Your task to perform on an android device: Go to accessibility settings Image 0: 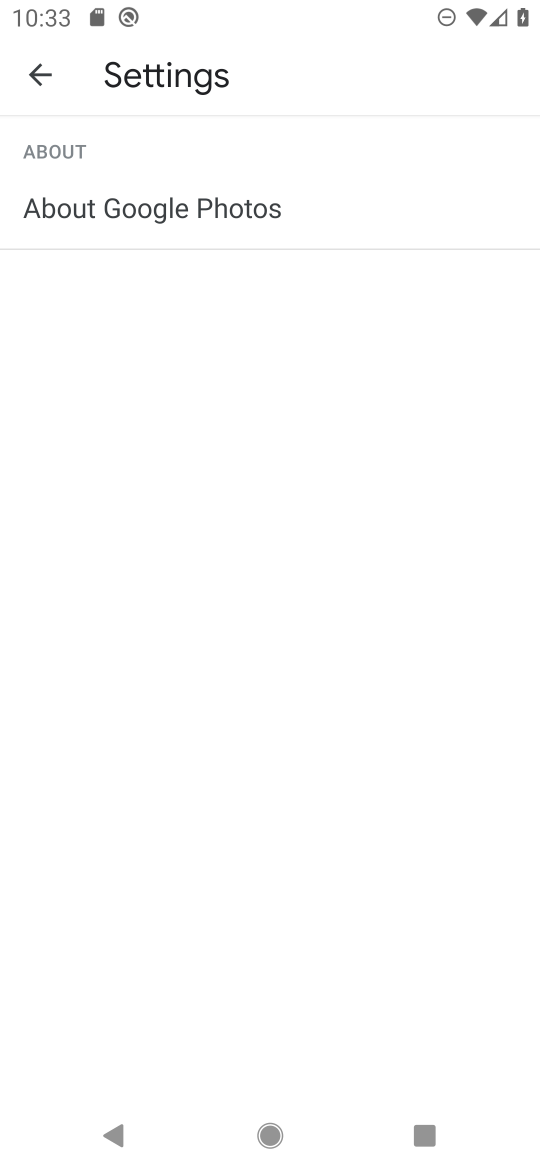
Step 0: click (26, 72)
Your task to perform on an android device: Go to accessibility settings Image 1: 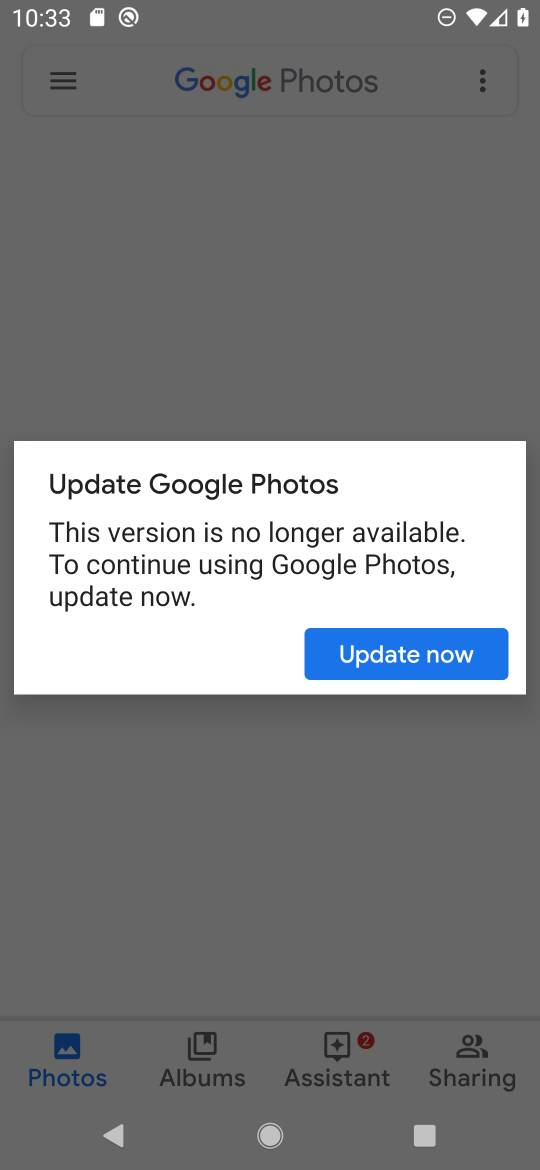
Step 1: press home button
Your task to perform on an android device: Go to accessibility settings Image 2: 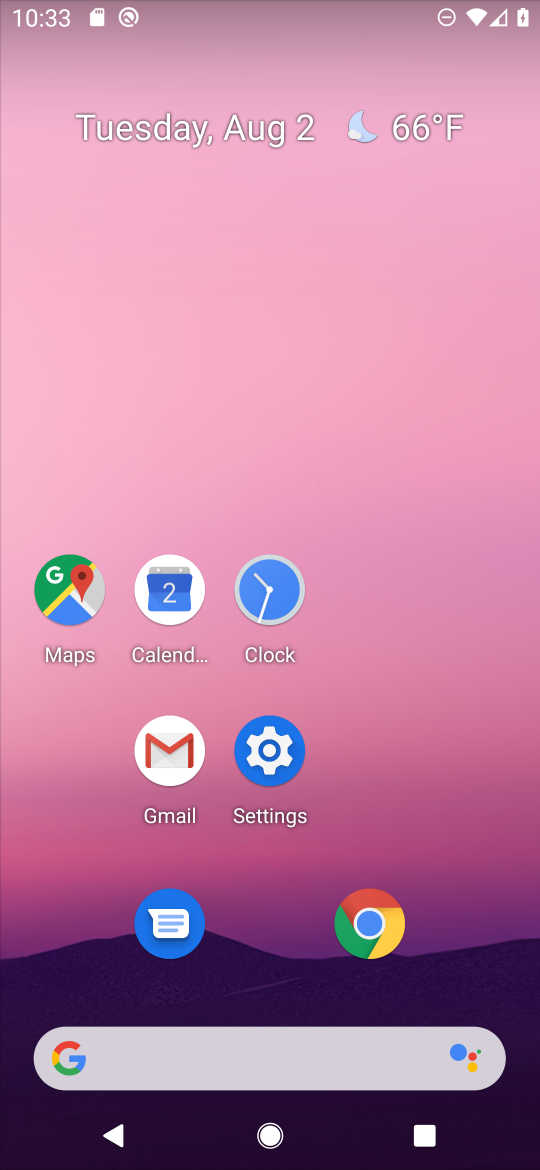
Step 2: click (261, 758)
Your task to perform on an android device: Go to accessibility settings Image 3: 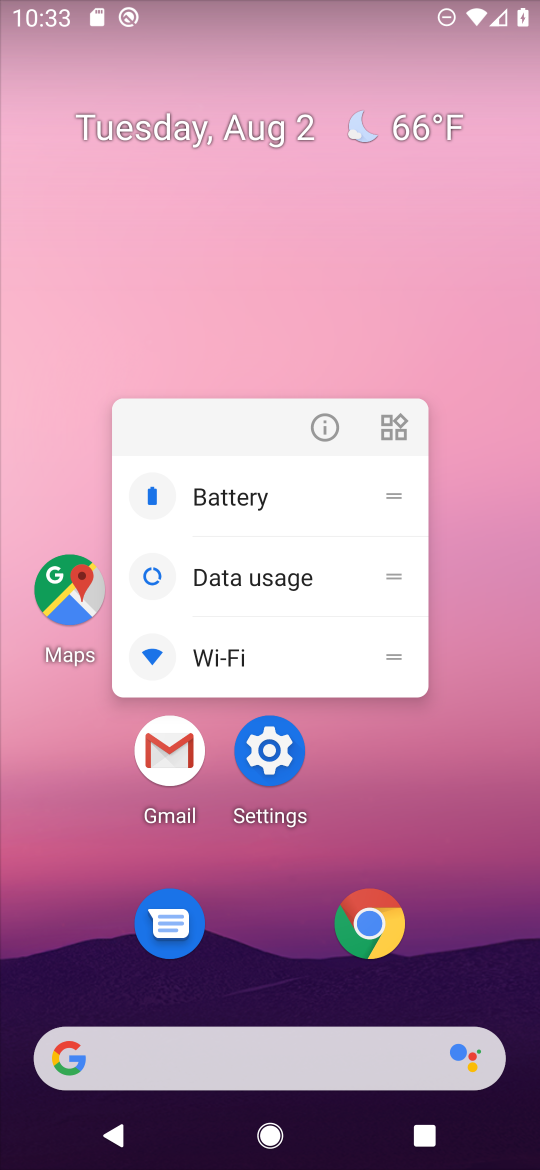
Step 3: click (258, 745)
Your task to perform on an android device: Go to accessibility settings Image 4: 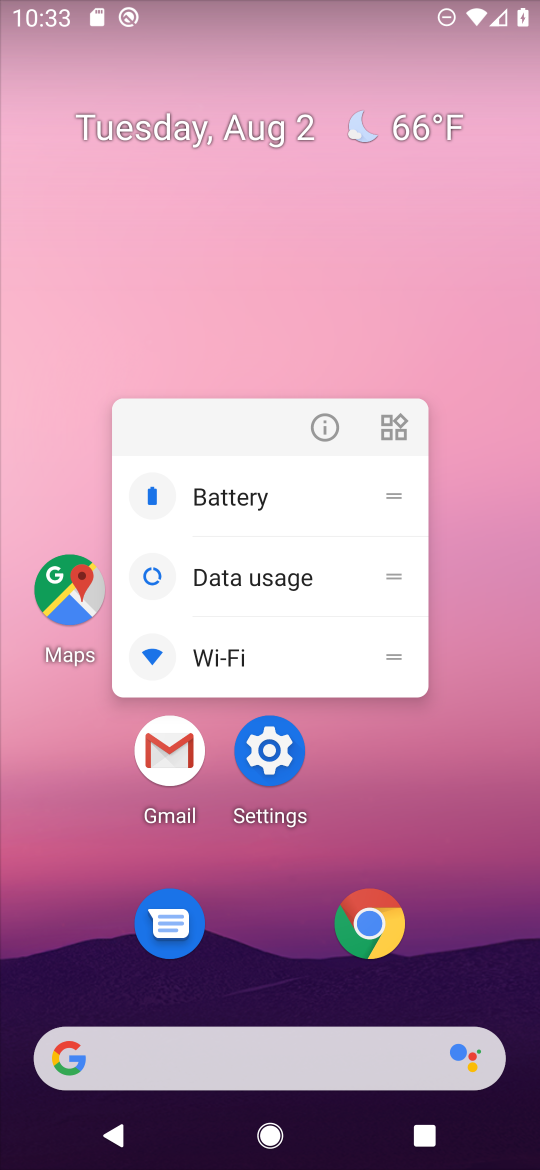
Step 4: click (258, 745)
Your task to perform on an android device: Go to accessibility settings Image 5: 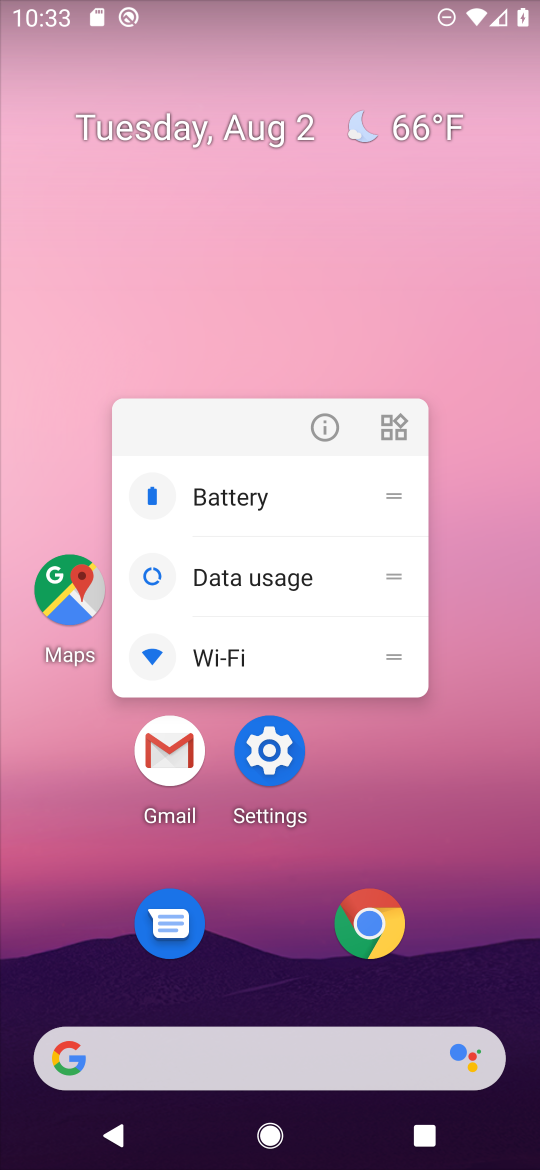
Step 5: click (258, 745)
Your task to perform on an android device: Go to accessibility settings Image 6: 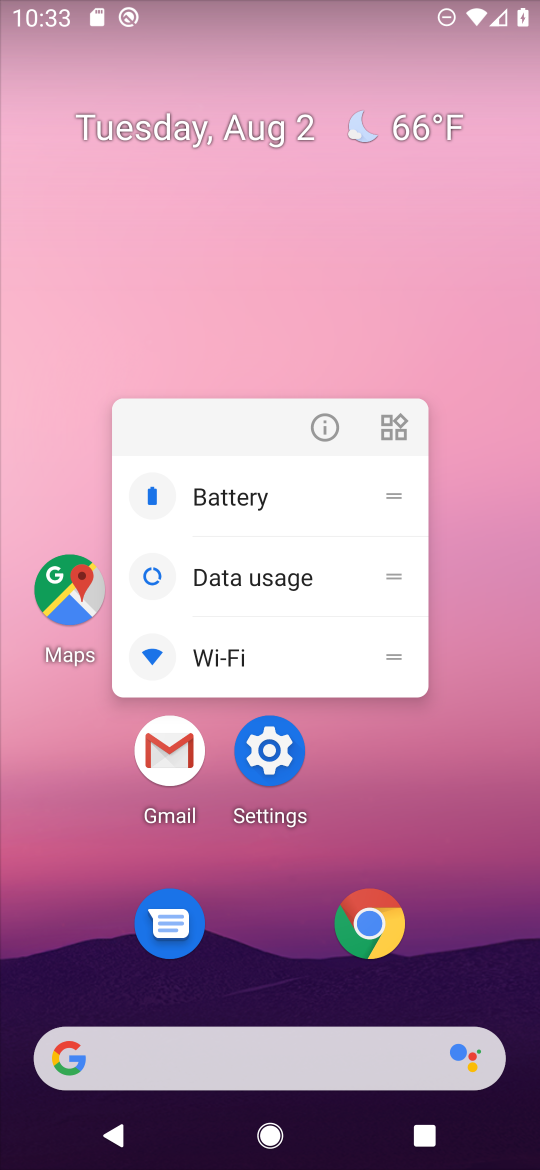
Step 6: click (267, 748)
Your task to perform on an android device: Go to accessibility settings Image 7: 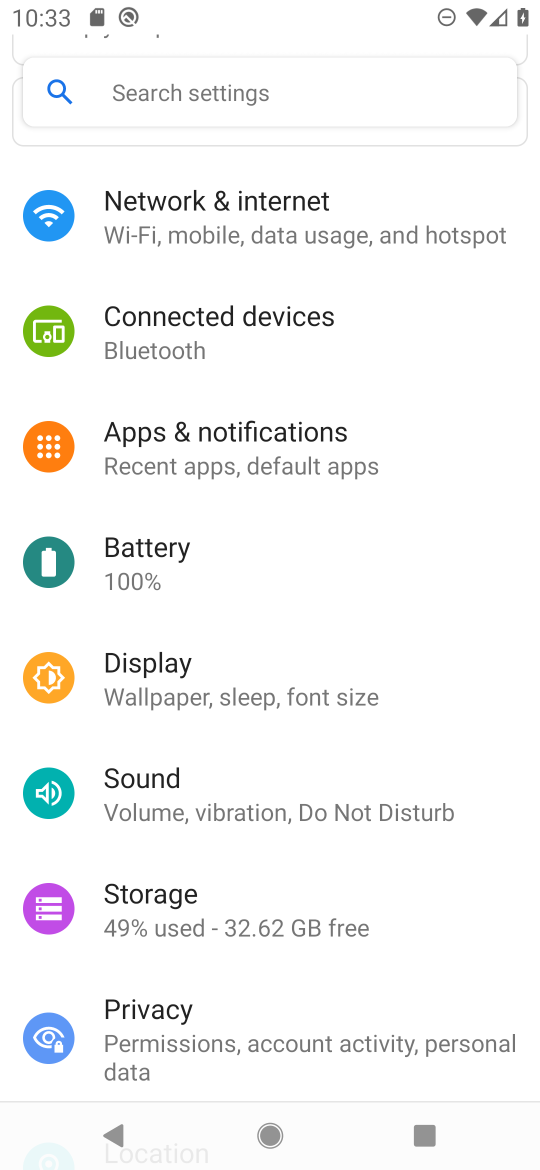
Step 7: drag from (455, 981) to (469, 398)
Your task to perform on an android device: Go to accessibility settings Image 8: 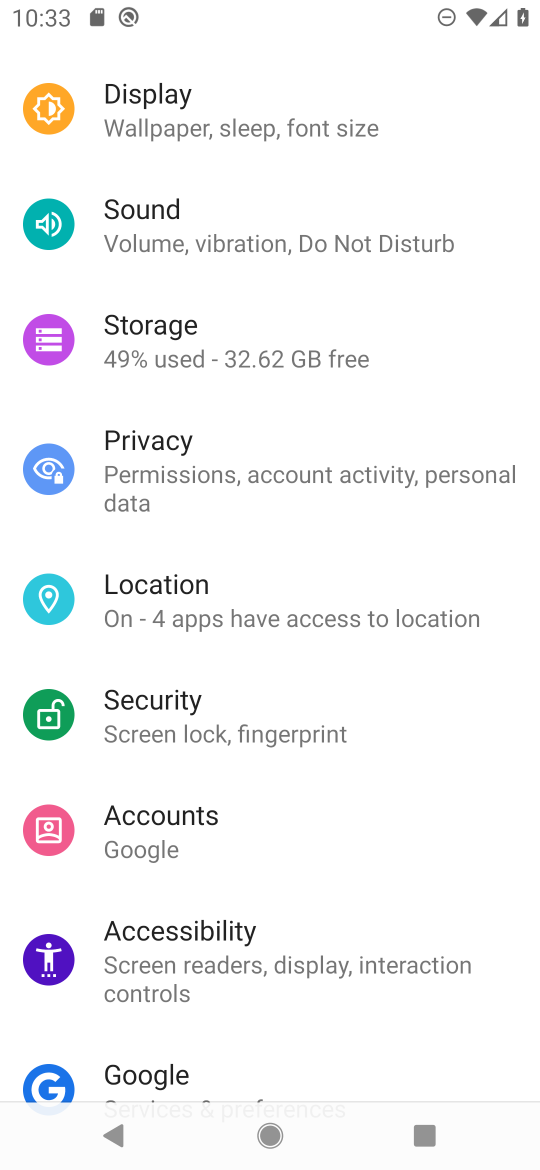
Step 8: click (191, 932)
Your task to perform on an android device: Go to accessibility settings Image 9: 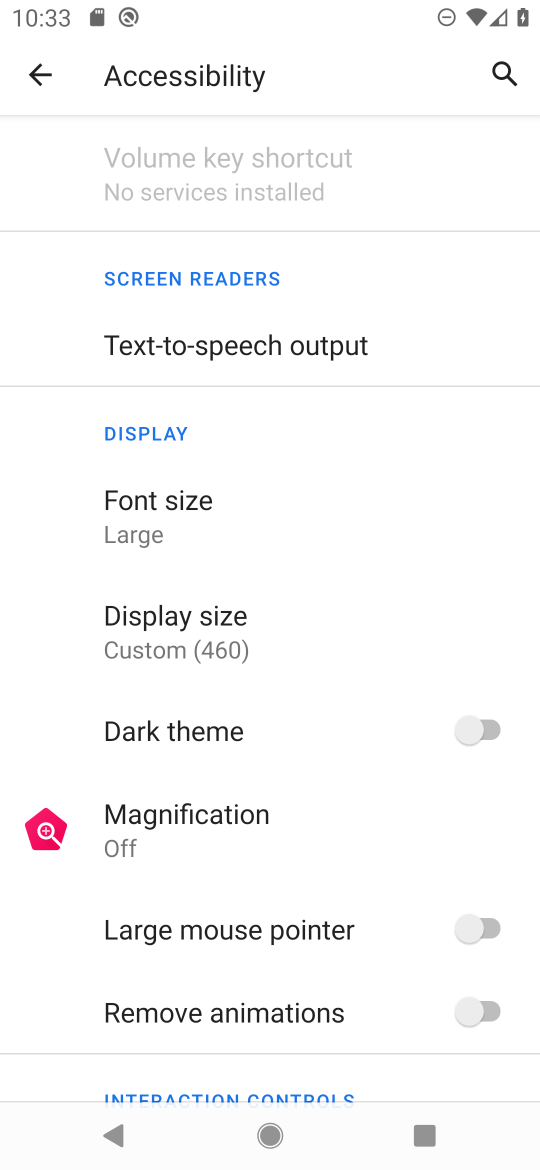
Step 9: task complete